Your task to perform on an android device: Show me popular games on the Play Store Image 0: 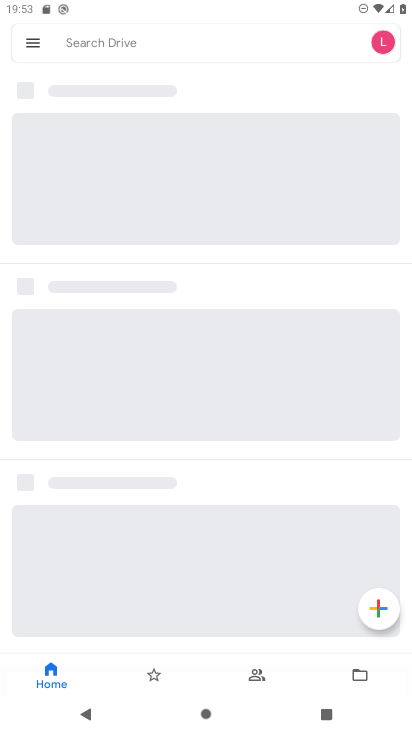
Step 0: press home button
Your task to perform on an android device: Show me popular games on the Play Store Image 1: 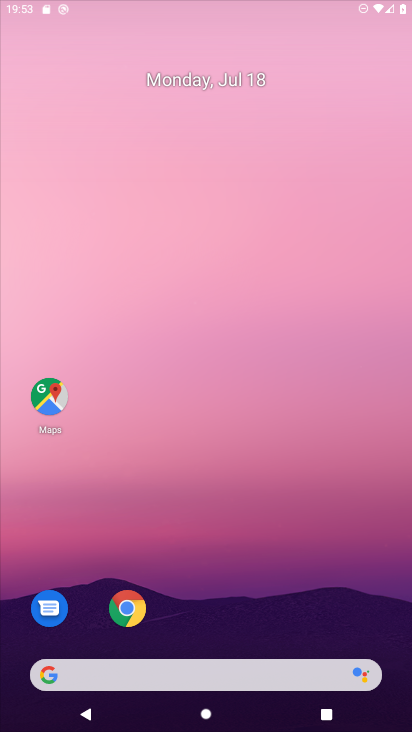
Step 1: drag from (188, 623) to (212, 123)
Your task to perform on an android device: Show me popular games on the Play Store Image 2: 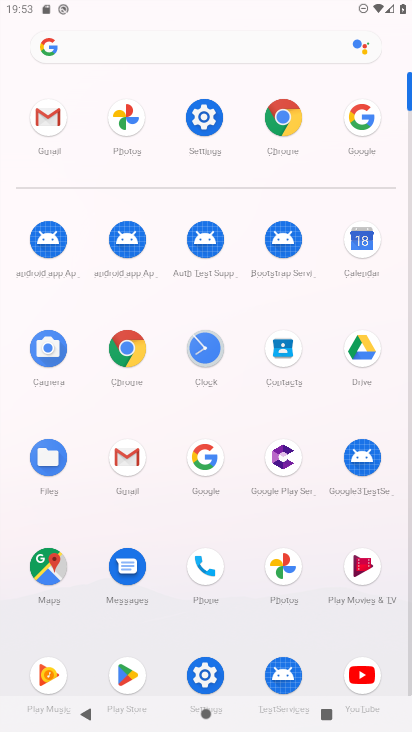
Step 2: click (125, 672)
Your task to perform on an android device: Show me popular games on the Play Store Image 3: 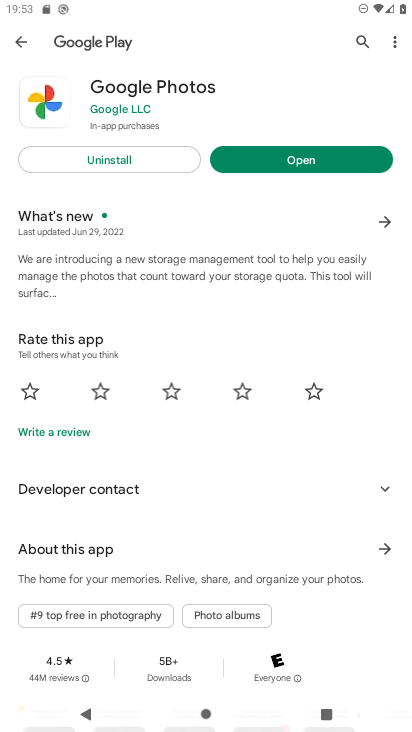
Step 3: press back button
Your task to perform on an android device: Show me popular games on the Play Store Image 4: 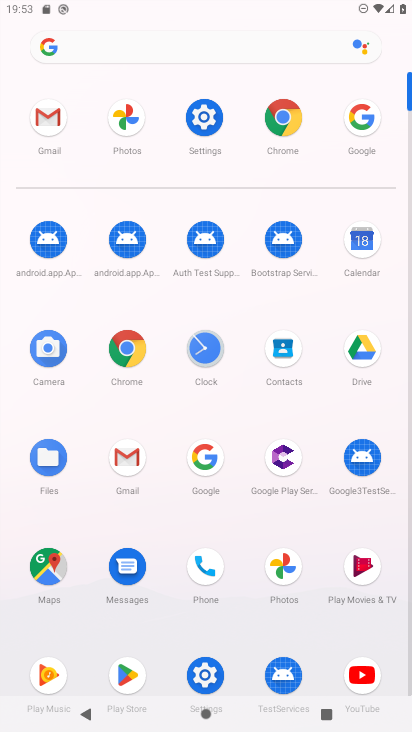
Step 4: click (127, 669)
Your task to perform on an android device: Show me popular games on the Play Store Image 5: 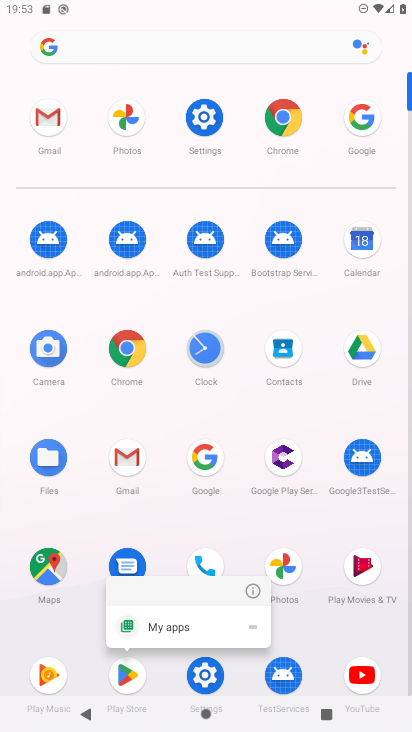
Step 5: click (129, 669)
Your task to perform on an android device: Show me popular games on the Play Store Image 6: 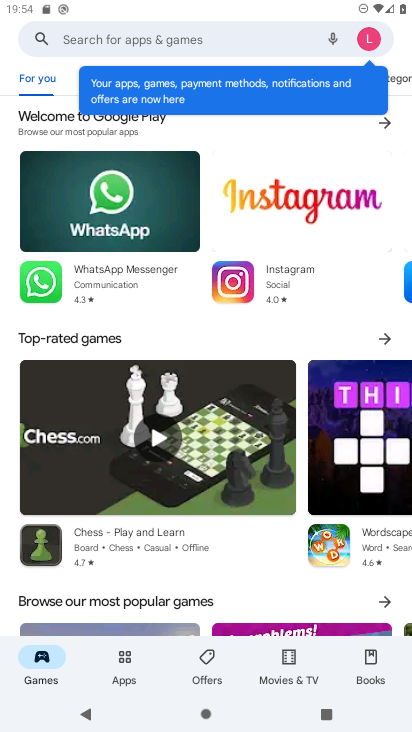
Step 6: click (169, 597)
Your task to perform on an android device: Show me popular games on the Play Store Image 7: 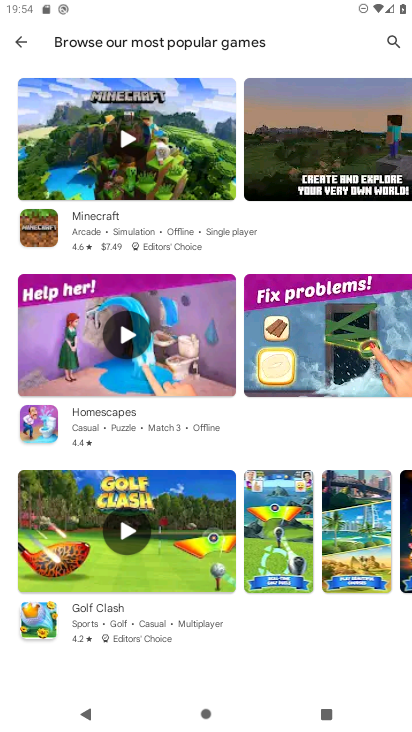
Step 7: task complete